Your task to perform on an android device: uninstall "eBay: The shopping marketplace" Image 0: 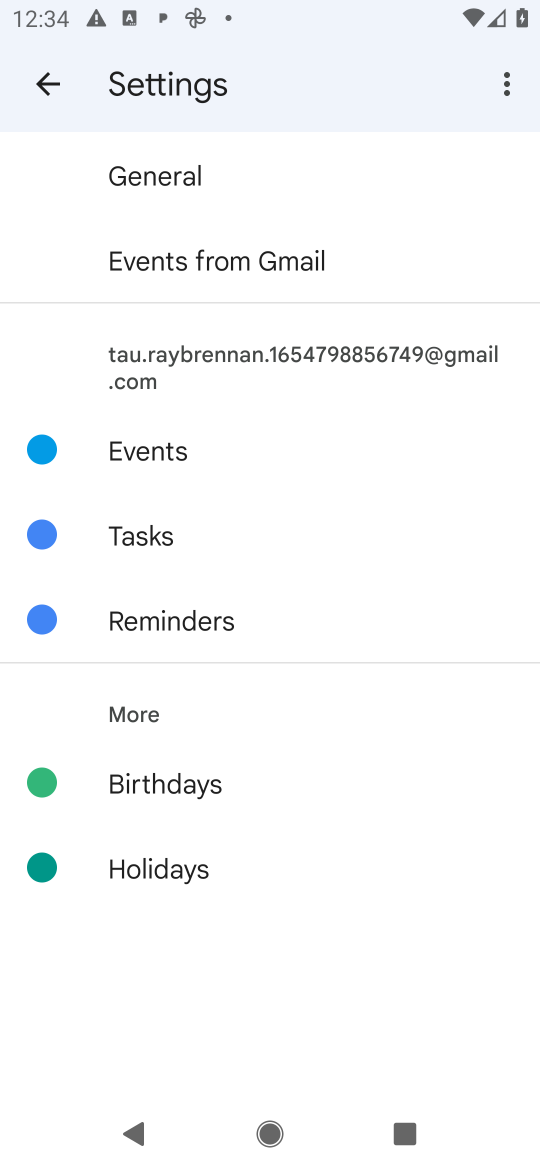
Step 0: press home button
Your task to perform on an android device: uninstall "eBay: The shopping marketplace" Image 1: 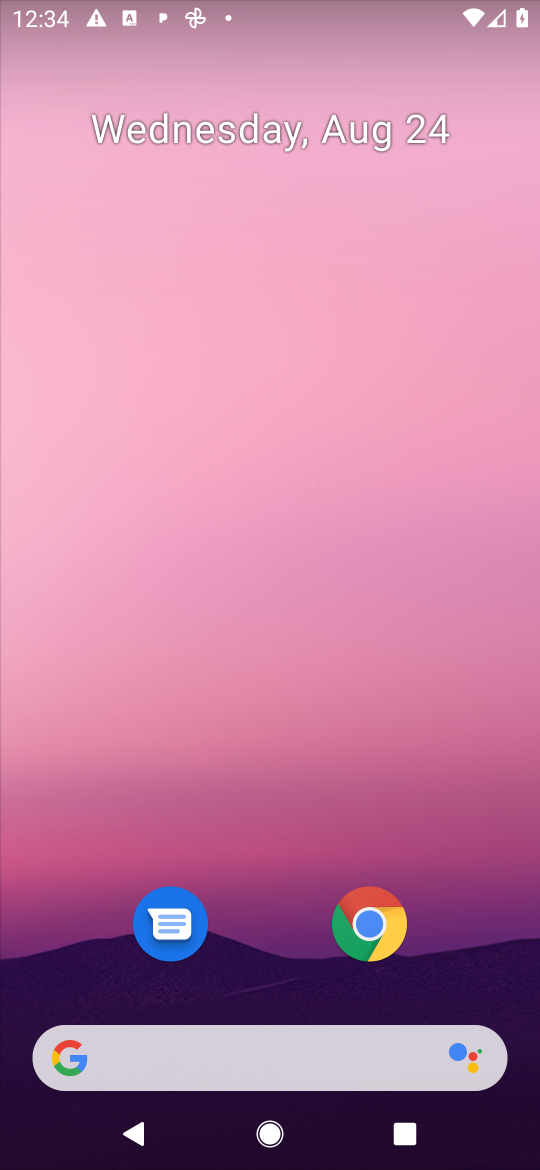
Step 1: drag from (458, 832) to (467, 123)
Your task to perform on an android device: uninstall "eBay: The shopping marketplace" Image 2: 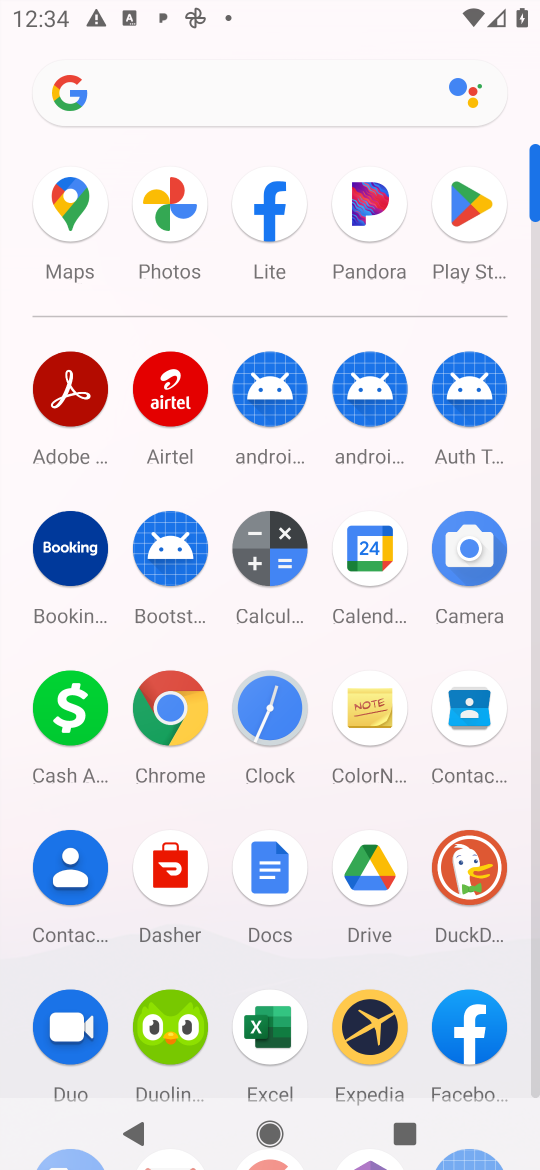
Step 2: click (472, 206)
Your task to perform on an android device: uninstall "eBay: The shopping marketplace" Image 3: 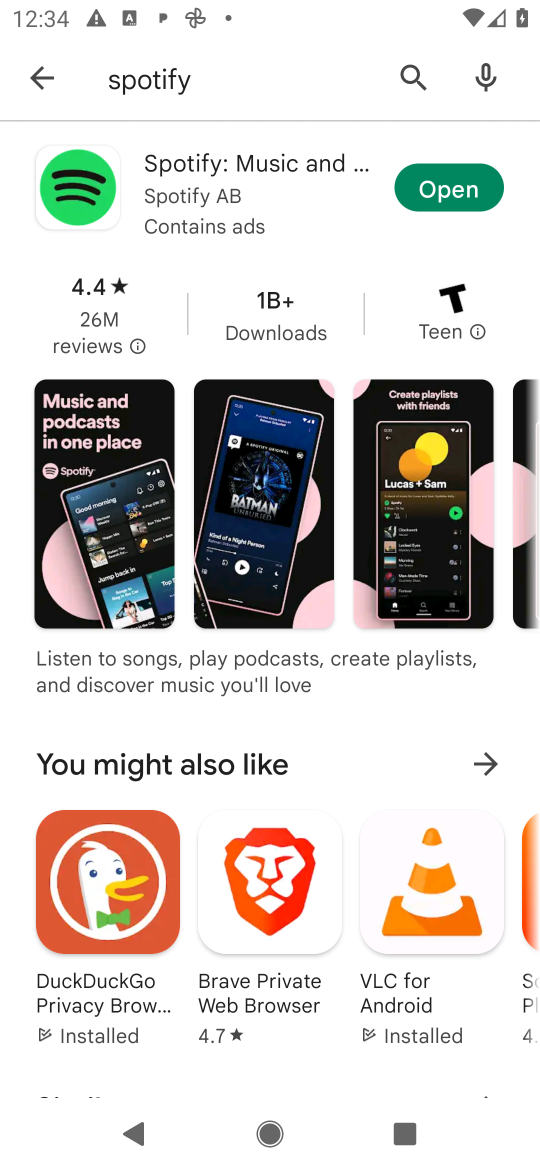
Step 3: press back button
Your task to perform on an android device: uninstall "eBay: The shopping marketplace" Image 4: 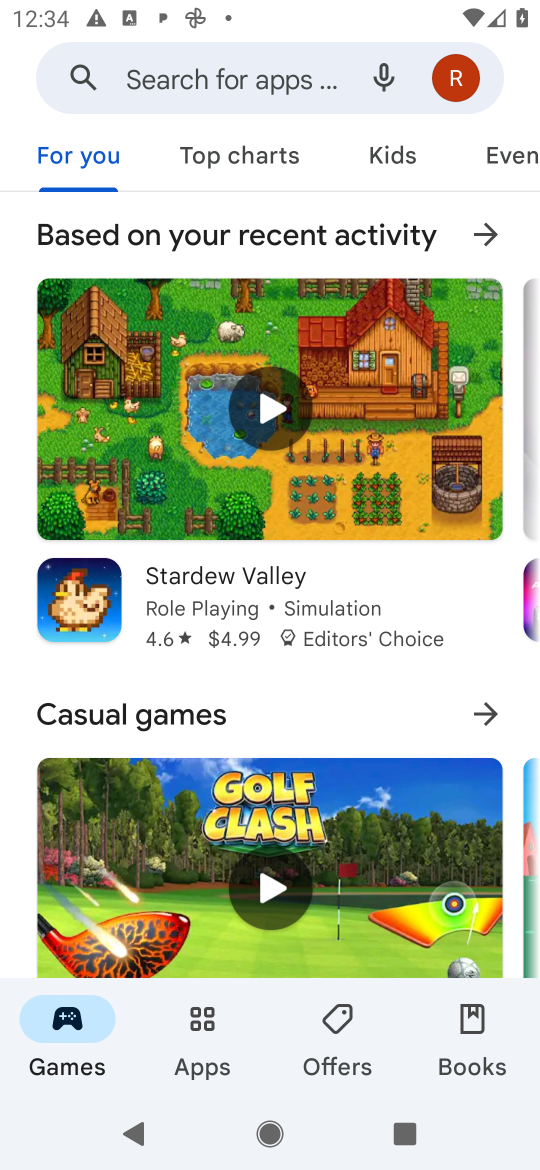
Step 4: click (263, 83)
Your task to perform on an android device: uninstall "eBay: The shopping marketplace" Image 5: 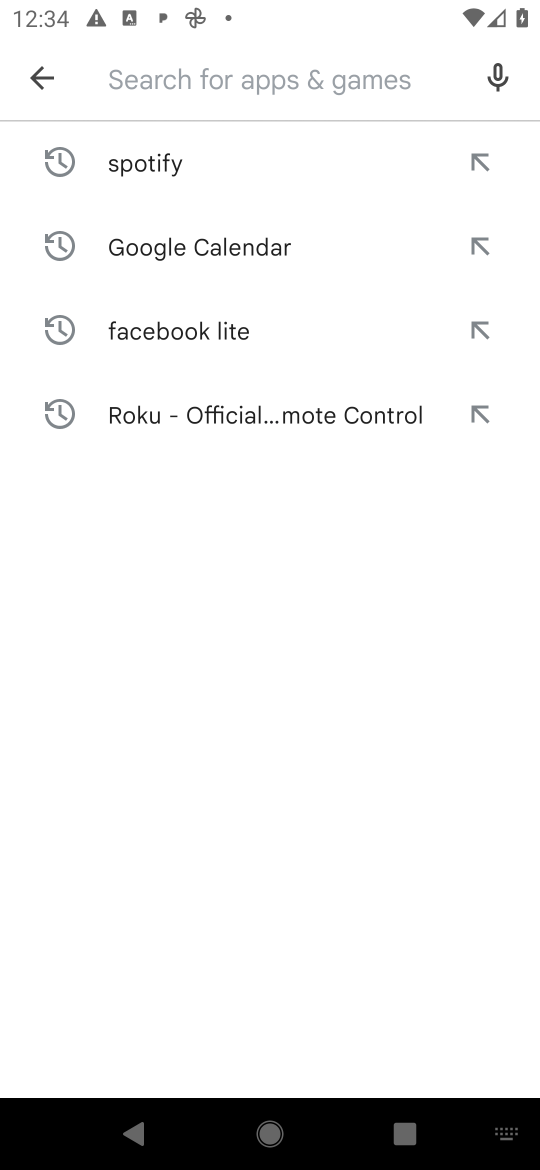
Step 5: type "eBay: The shopping marketplace"
Your task to perform on an android device: uninstall "eBay: The shopping marketplace" Image 6: 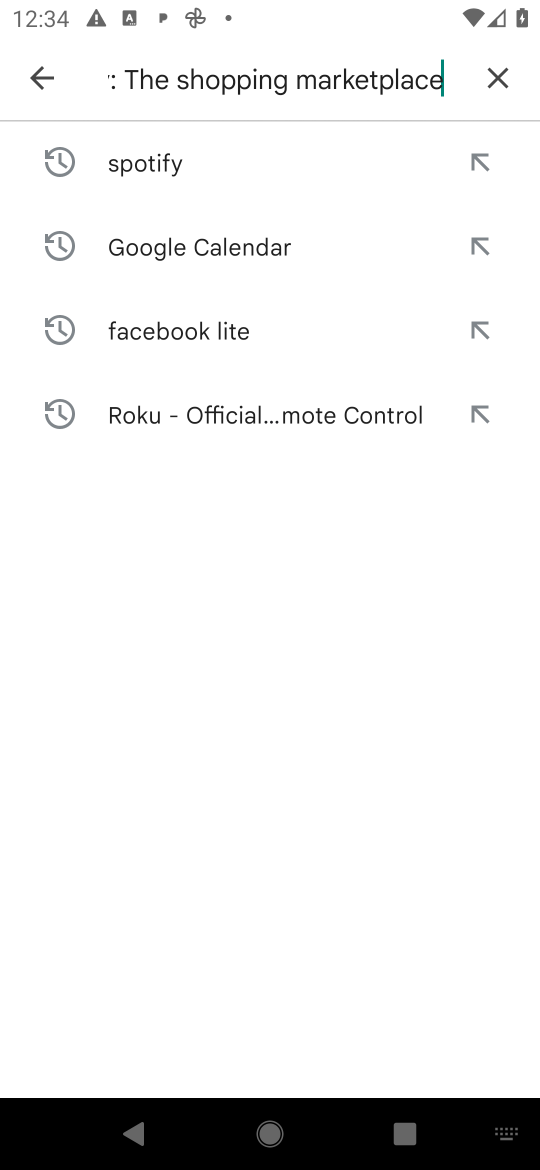
Step 6: press enter
Your task to perform on an android device: uninstall "eBay: The shopping marketplace" Image 7: 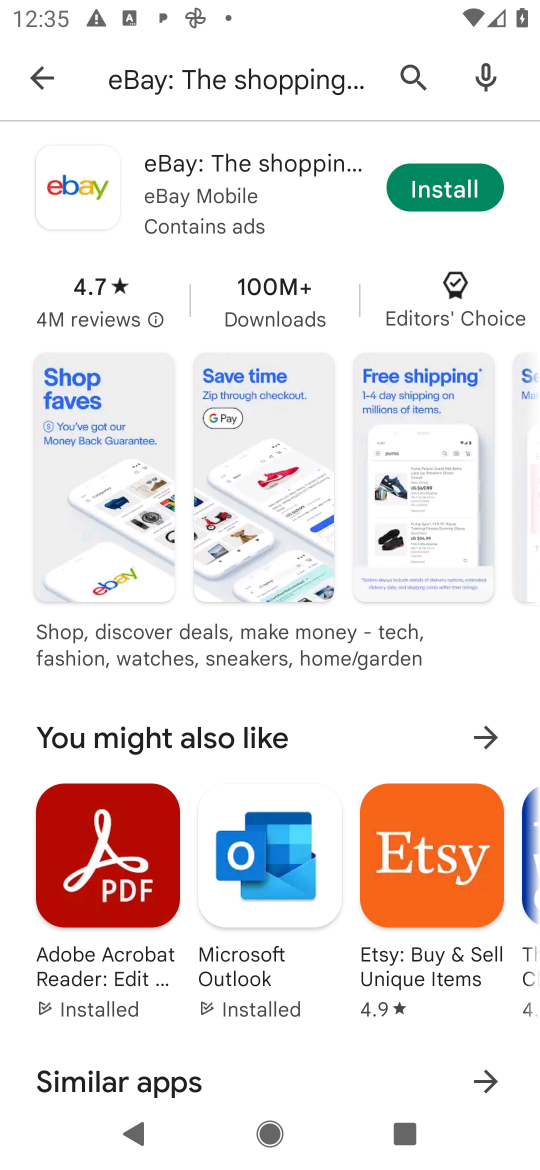
Step 7: task complete